Your task to perform on an android device: Go to privacy settings Image 0: 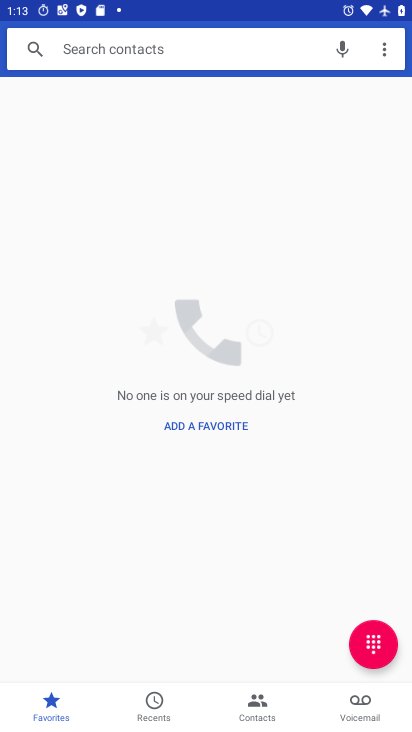
Step 0: press home button
Your task to perform on an android device: Go to privacy settings Image 1: 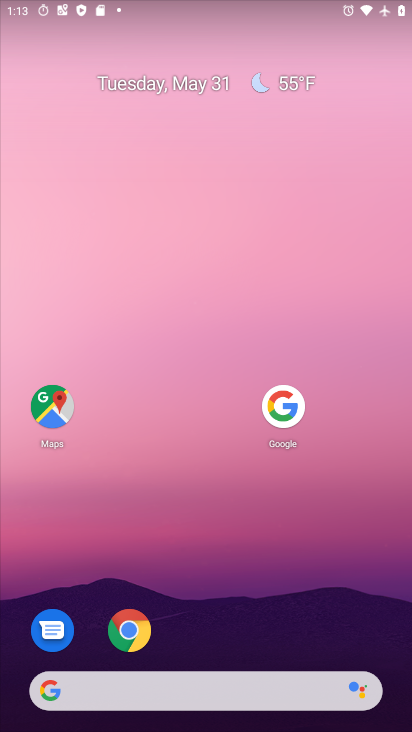
Step 1: drag from (217, 685) to (344, 93)
Your task to perform on an android device: Go to privacy settings Image 2: 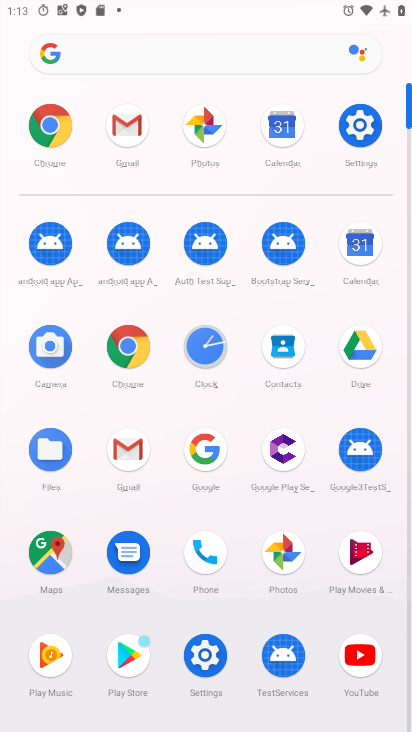
Step 2: click (358, 134)
Your task to perform on an android device: Go to privacy settings Image 3: 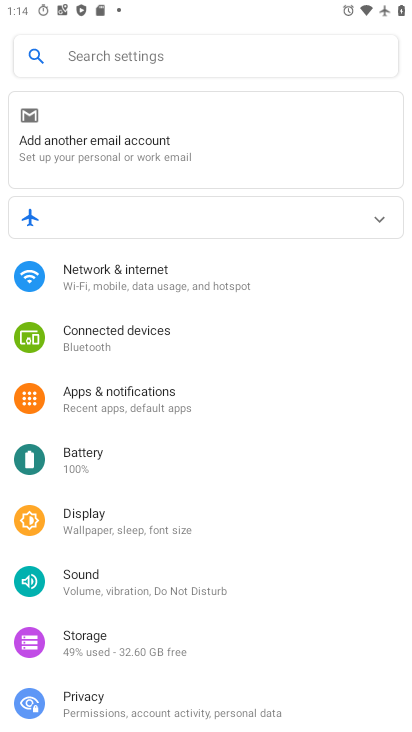
Step 3: click (99, 701)
Your task to perform on an android device: Go to privacy settings Image 4: 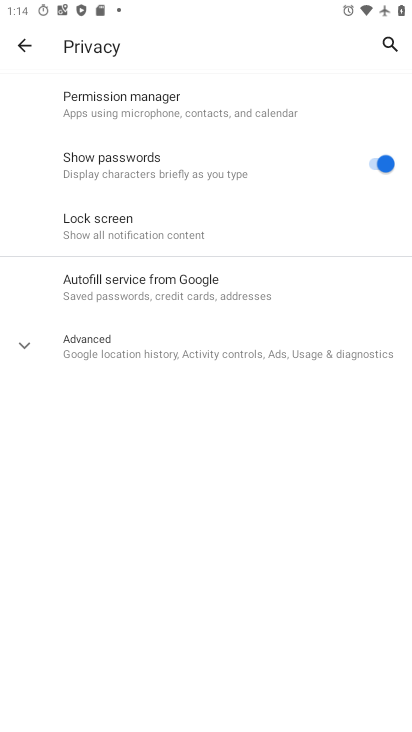
Step 4: task complete